Your task to perform on an android device: Open sound settings Image 0: 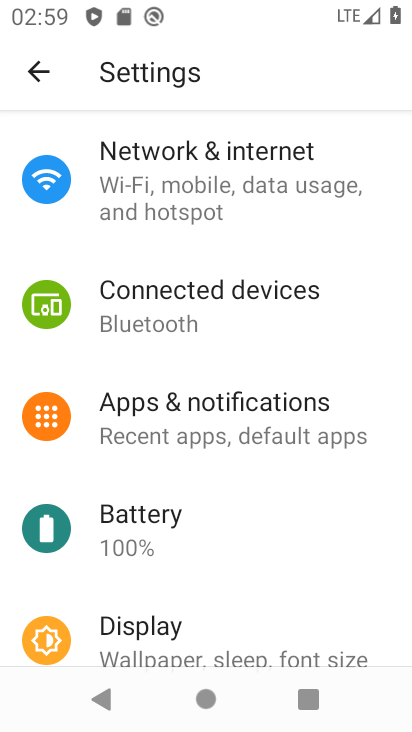
Step 0: drag from (175, 605) to (213, 195)
Your task to perform on an android device: Open sound settings Image 1: 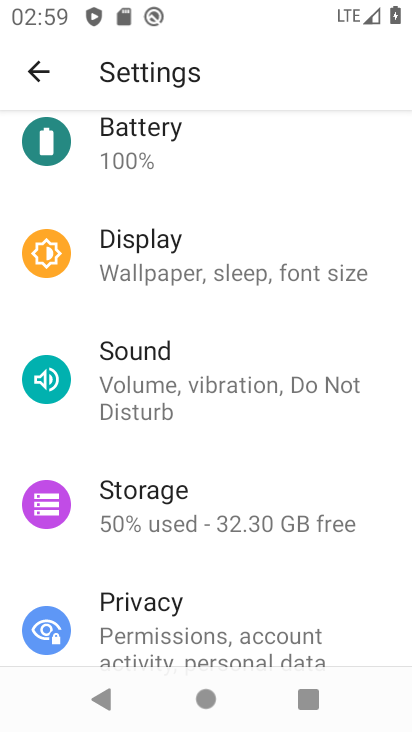
Step 1: click (186, 362)
Your task to perform on an android device: Open sound settings Image 2: 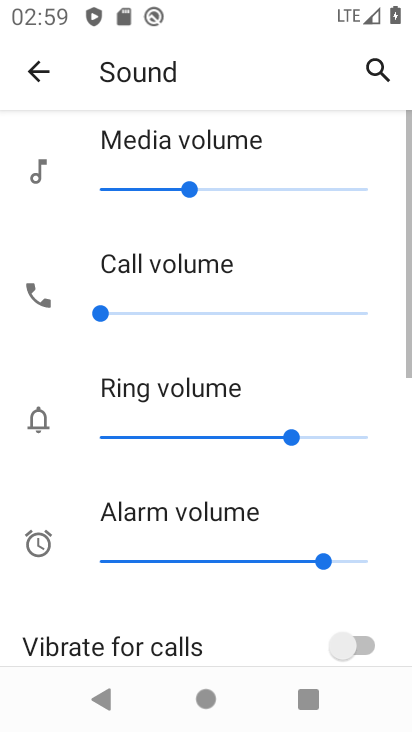
Step 2: task complete